Your task to perform on an android device: Show me popular games on the Play Store Image 0: 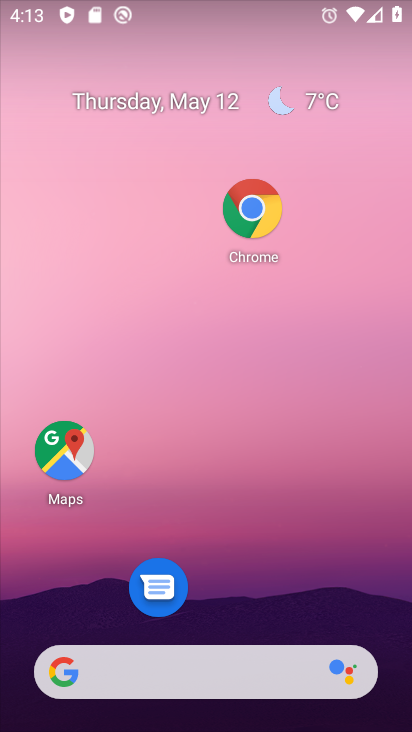
Step 0: drag from (242, 587) to (241, 127)
Your task to perform on an android device: Show me popular games on the Play Store Image 1: 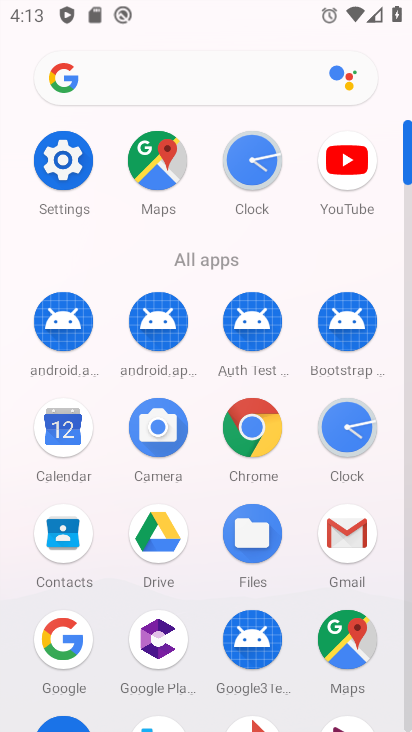
Step 1: drag from (142, 661) to (156, 420)
Your task to perform on an android device: Show me popular games on the Play Store Image 2: 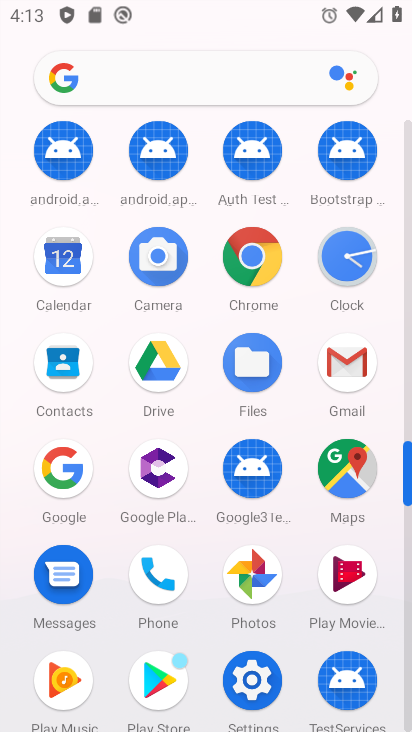
Step 2: click (167, 697)
Your task to perform on an android device: Show me popular games on the Play Store Image 3: 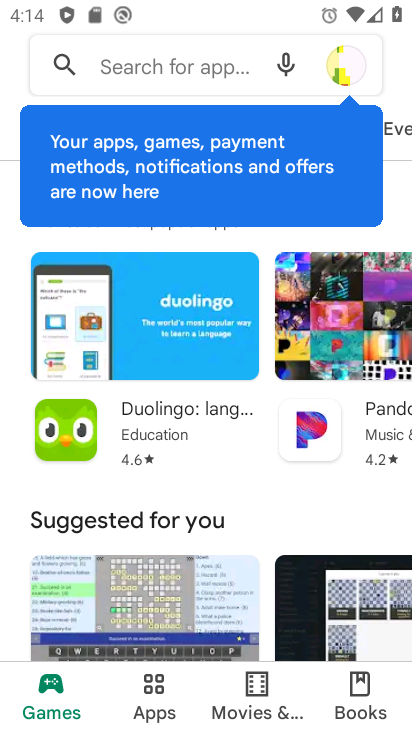
Step 3: task complete